Your task to perform on an android device: turn pop-ups off in chrome Image 0: 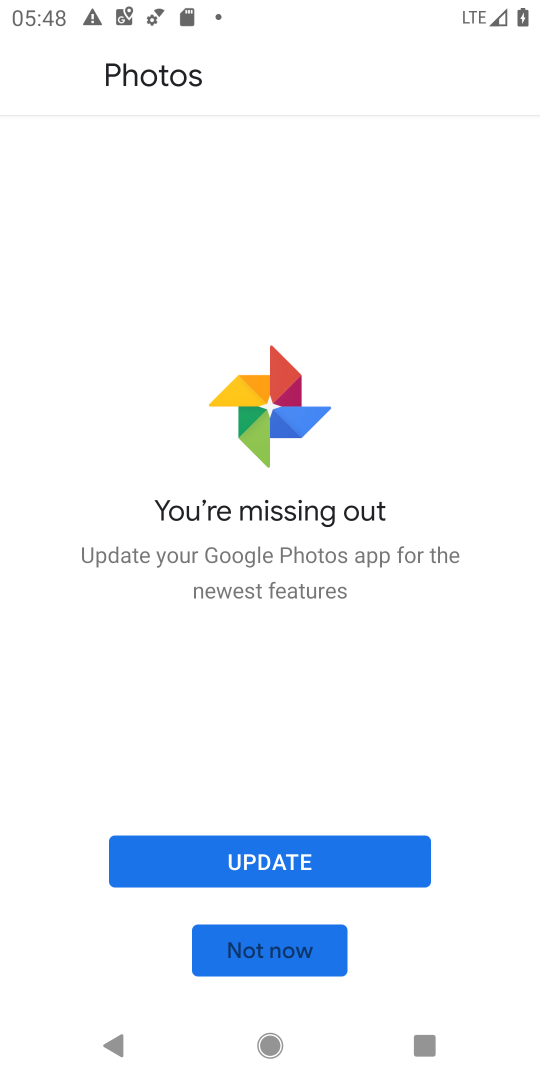
Step 0: press home button
Your task to perform on an android device: turn pop-ups off in chrome Image 1: 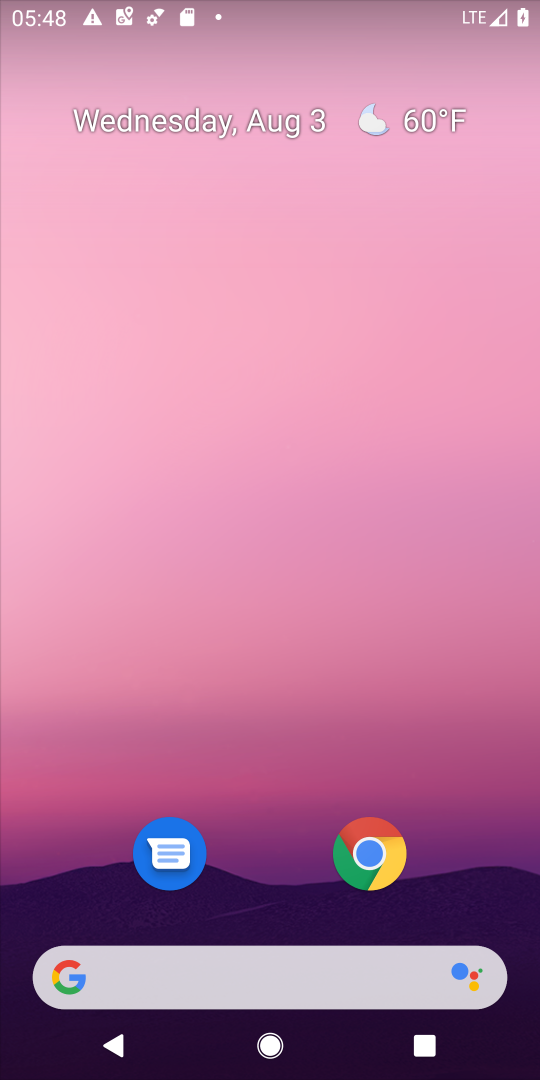
Step 1: click (381, 855)
Your task to perform on an android device: turn pop-ups off in chrome Image 2: 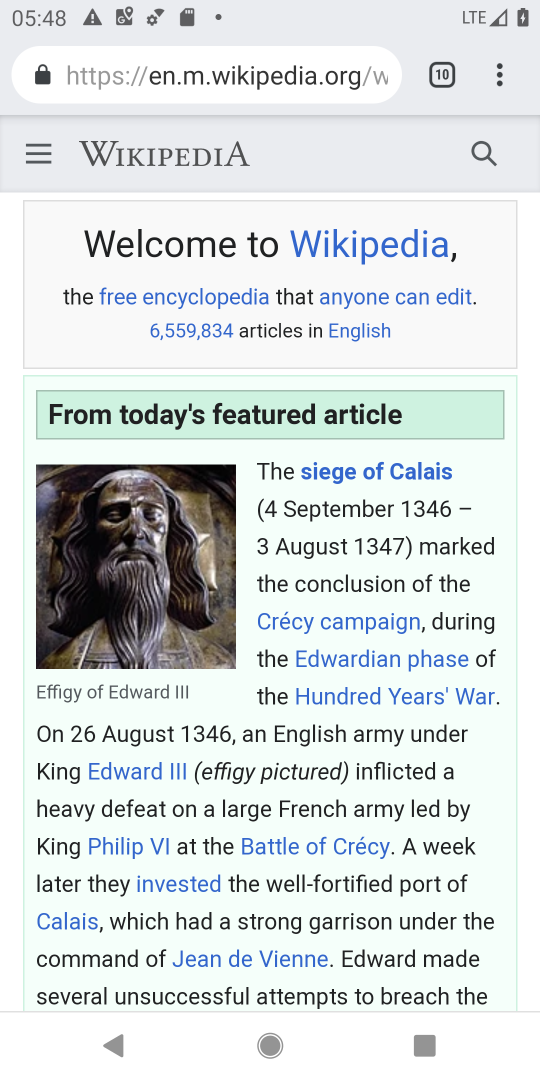
Step 2: click (499, 85)
Your task to perform on an android device: turn pop-ups off in chrome Image 3: 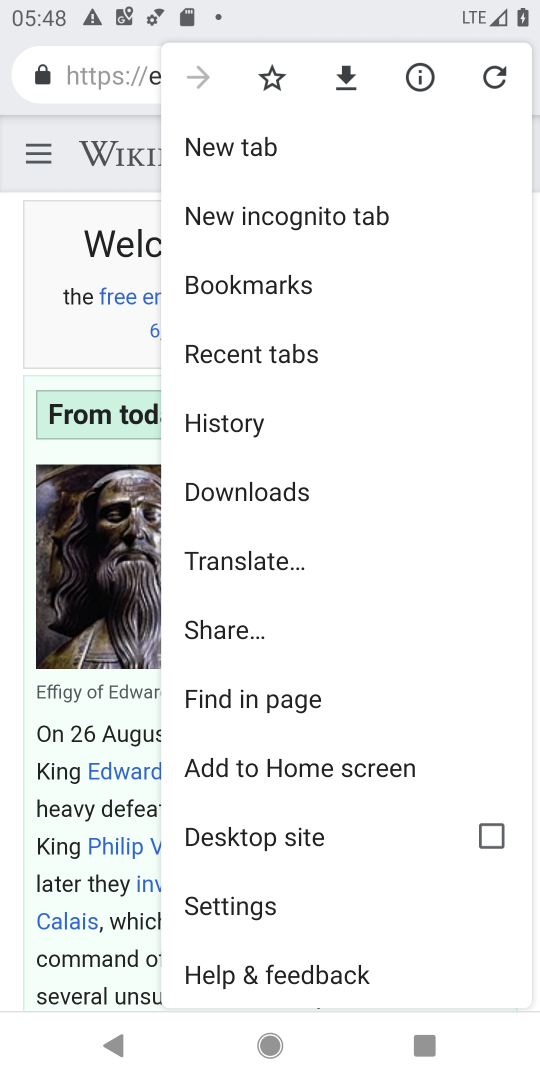
Step 3: click (228, 910)
Your task to perform on an android device: turn pop-ups off in chrome Image 4: 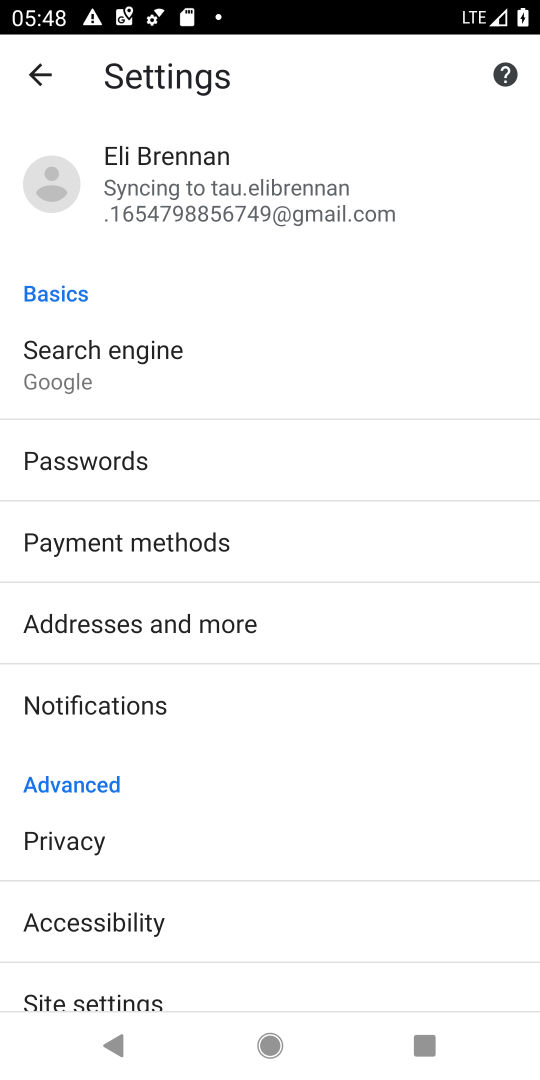
Step 4: click (88, 1002)
Your task to perform on an android device: turn pop-ups off in chrome Image 5: 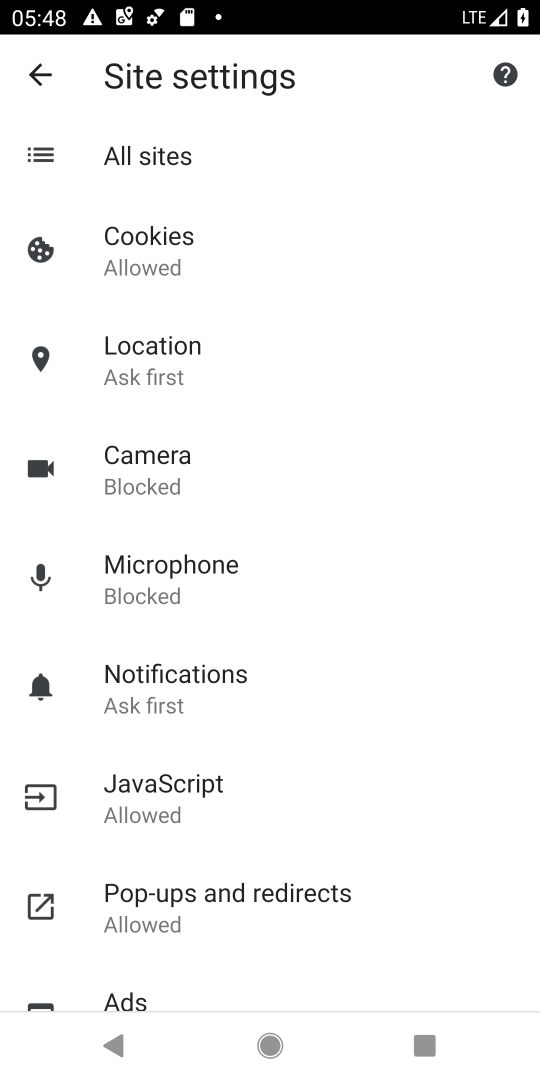
Step 5: click (160, 894)
Your task to perform on an android device: turn pop-ups off in chrome Image 6: 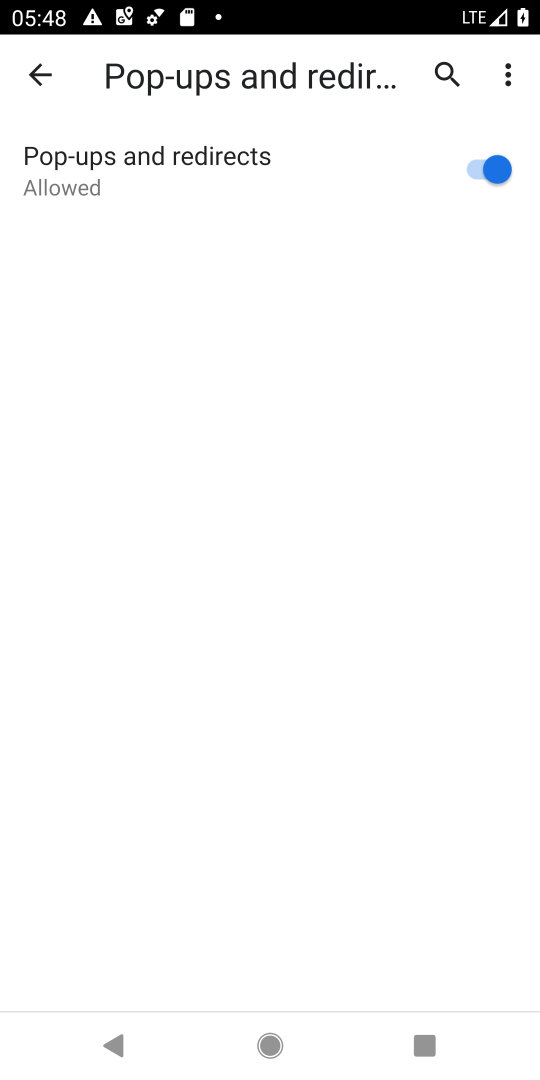
Step 6: click (494, 150)
Your task to perform on an android device: turn pop-ups off in chrome Image 7: 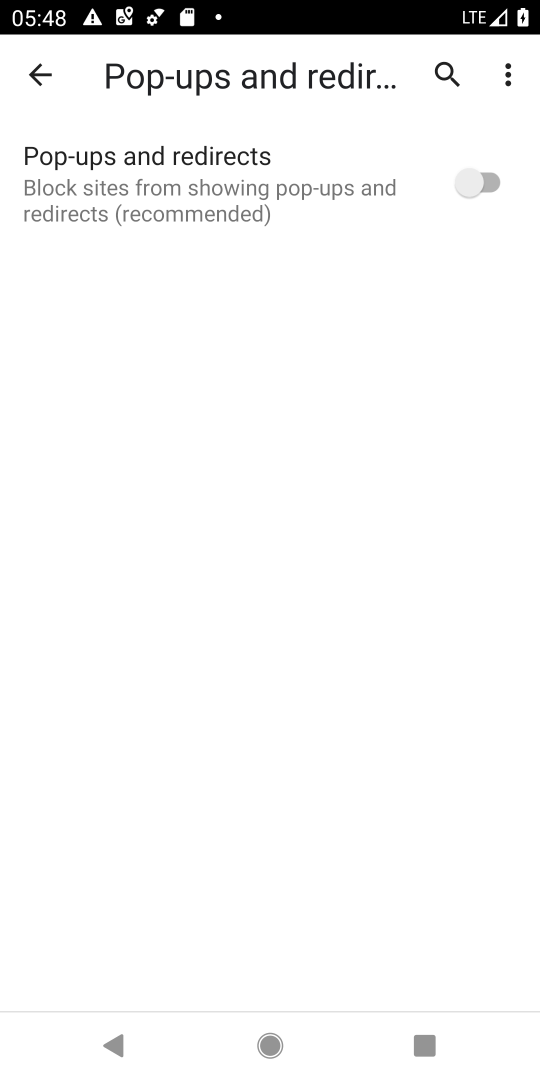
Step 7: task complete